Your task to perform on an android device: turn on bluetooth scan Image 0: 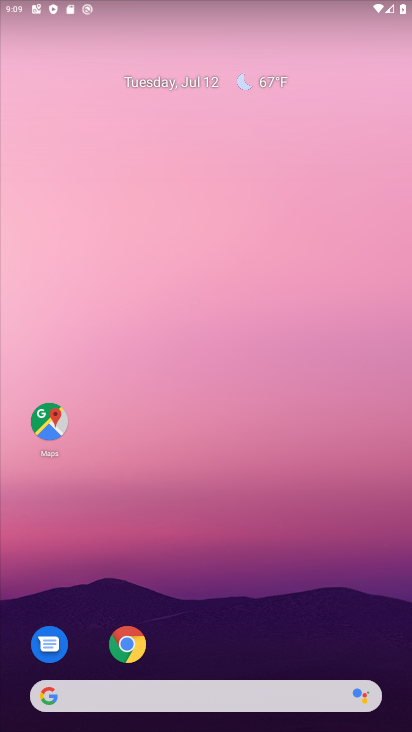
Step 0: drag from (176, 642) to (237, 89)
Your task to perform on an android device: turn on bluetooth scan Image 1: 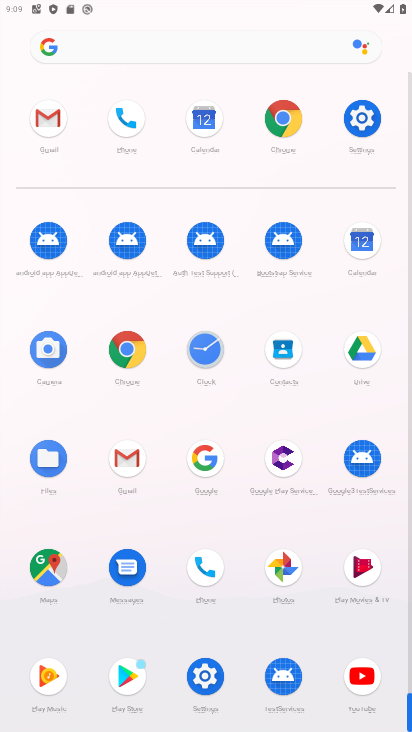
Step 1: click (355, 116)
Your task to perform on an android device: turn on bluetooth scan Image 2: 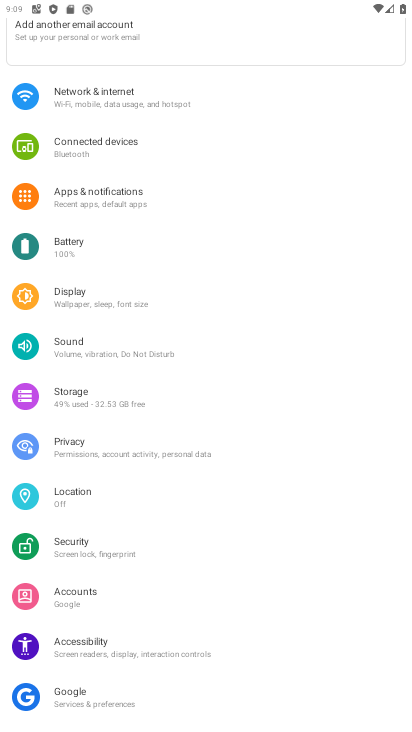
Step 2: drag from (166, 590) to (197, 172)
Your task to perform on an android device: turn on bluetooth scan Image 3: 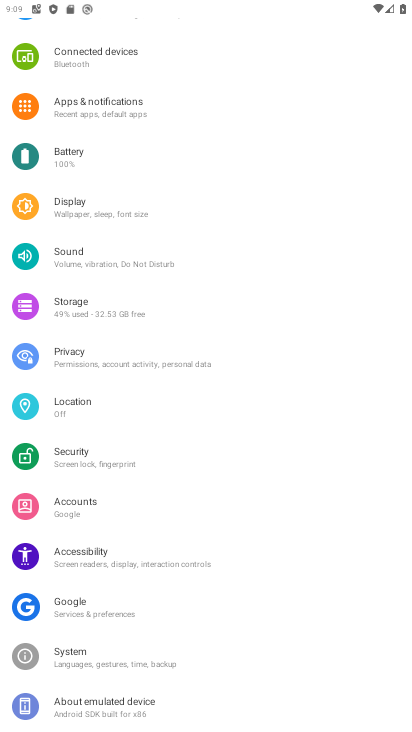
Step 3: drag from (166, 112) to (248, 685)
Your task to perform on an android device: turn on bluetooth scan Image 4: 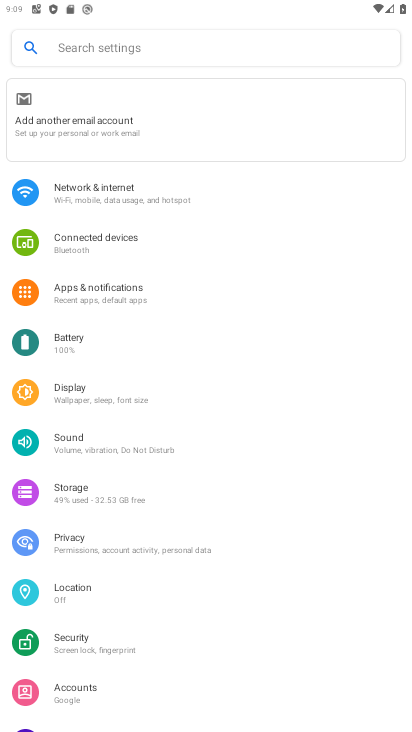
Step 4: click (84, 595)
Your task to perform on an android device: turn on bluetooth scan Image 5: 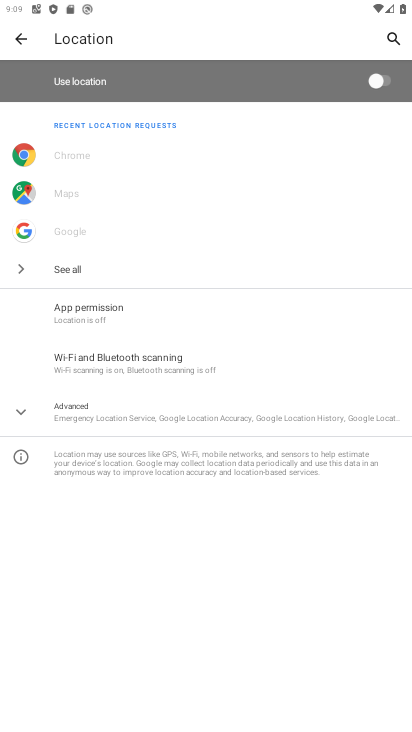
Step 5: click (107, 417)
Your task to perform on an android device: turn on bluetooth scan Image 6: 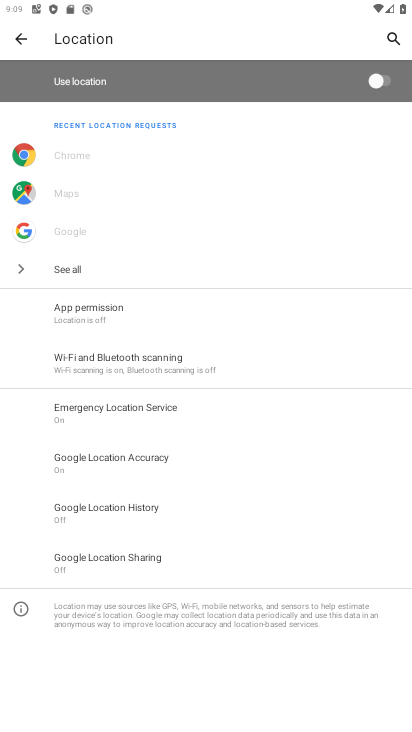
Step 6: click (161, 372)
Your task to perform on an android device: turn on bluetooth scan Image 7: 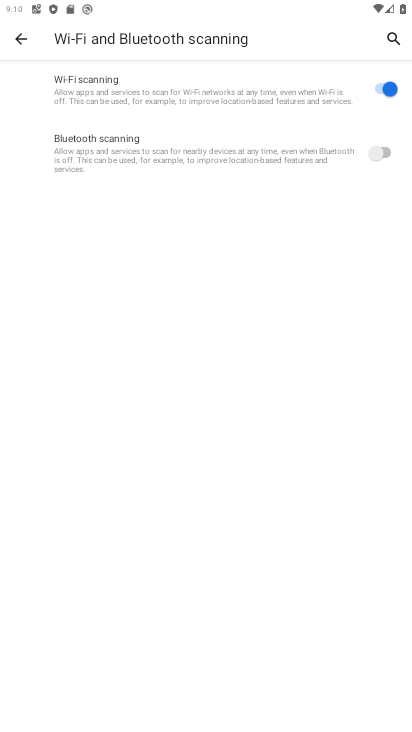
Step 7: click (324, 145)
Your task to perform on an android device: turn on bluetooth scan Image 8: 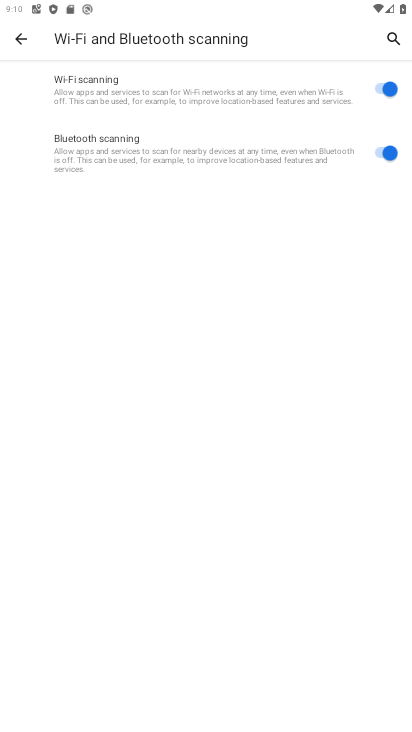
Step 8: task complete